Your task to perform on an android device: change the clock display to show seconds Image 0: 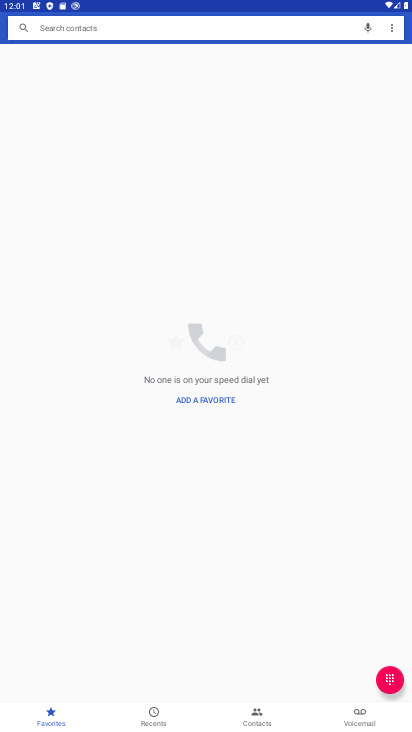
Step 0: press home button
Your task to perform on an android device: change the clock display to show seconds Image 1: 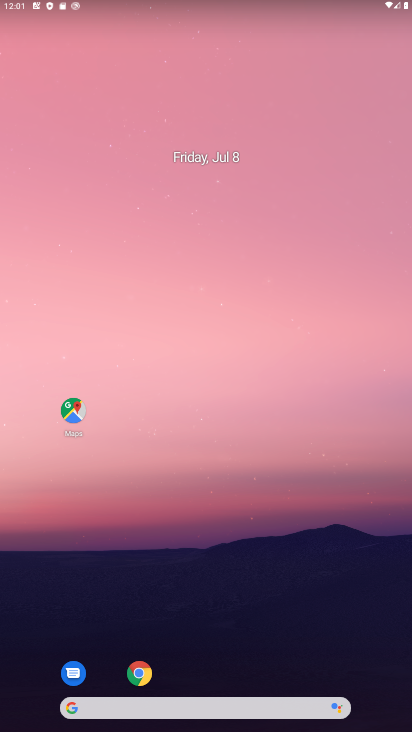
Step 1: drag from (234, 629) to (221, 208)
Your task to perform on an android device: change the clock display to show seconds Image 2: 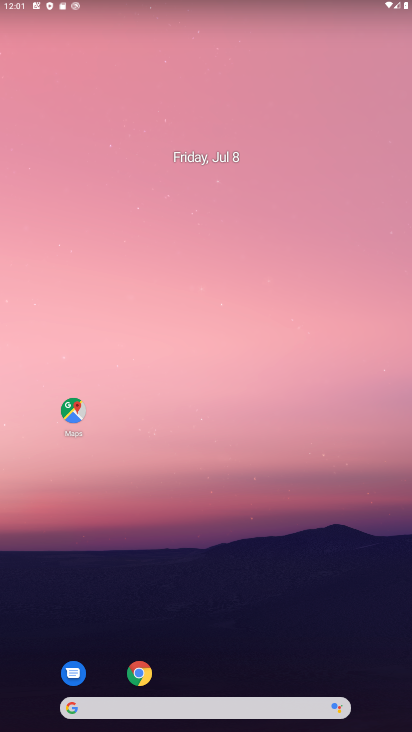
Step 2: drag from (219, 662) to (251, 91)
Your task to perform on an android device: change the clock display to show seconds Image 3: 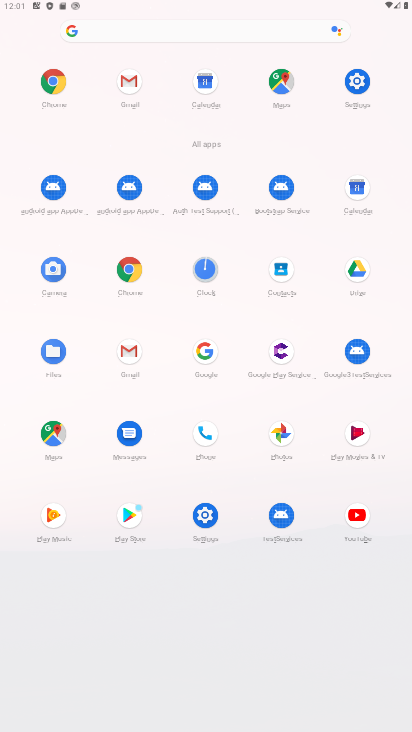
Step 3: click (203, 270)
Your task to perform on an android device: change the clock display to show seconds Image 4: 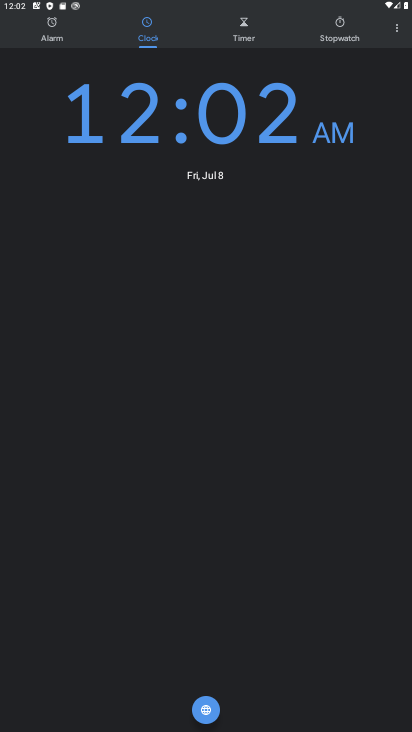
Step 4: click (397, 33)
Your task to perform on an android device: change the clock display to show seconds Image 5: 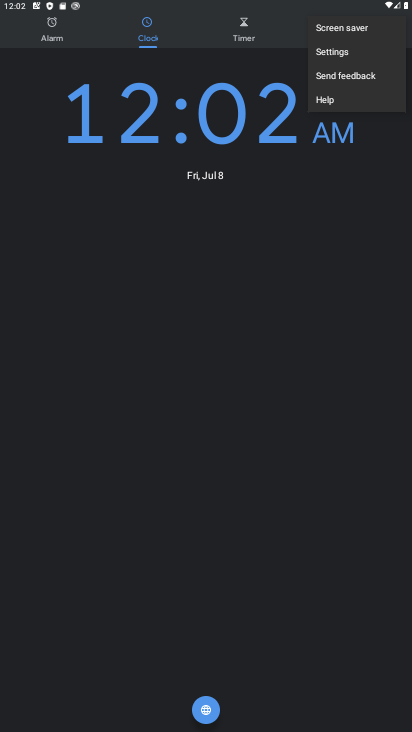
Step 5: click (344, 53)
Your task to perform on an android device: change the clock display to show seconds Image 6: 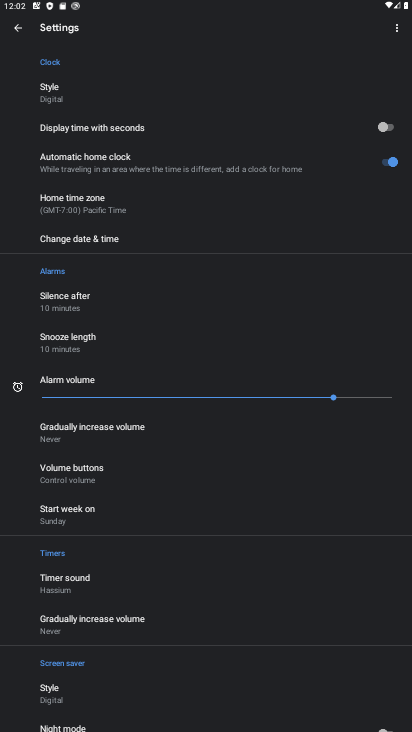
Step 6: click (126, 125)
Your task to perform on an android device: change the clock display to show seconds Image 7: 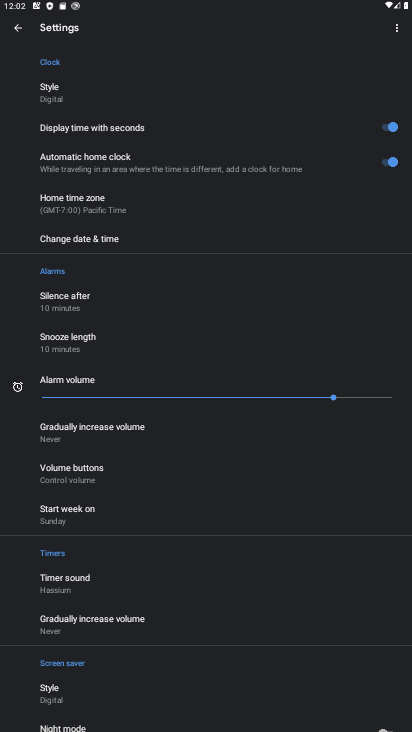
Step 7: task complete